Your task to perform on an android device: check data usage Image 0: 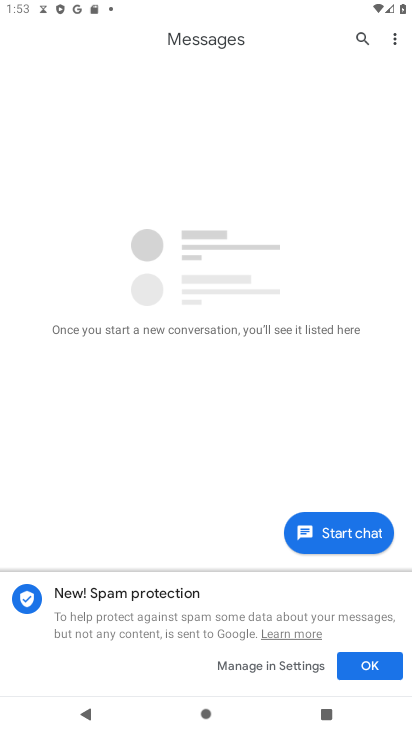
Step 0: press home button
Your task to perform on an android device: check data usage Image 1: 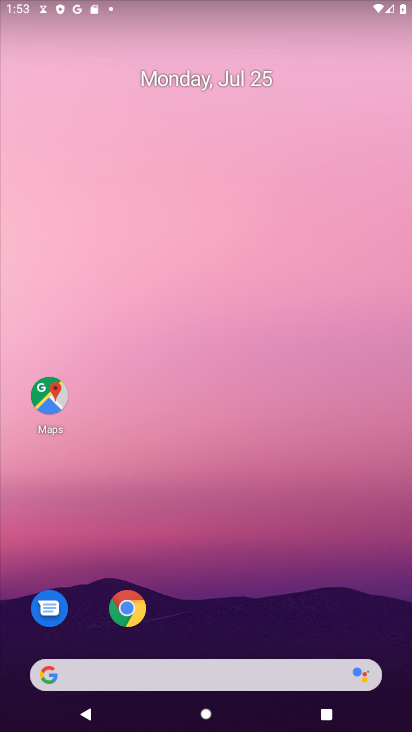
Step 1: drag from (161, 671) to (167, 147)
Your task to perform on an android device: check data usage Image 2: 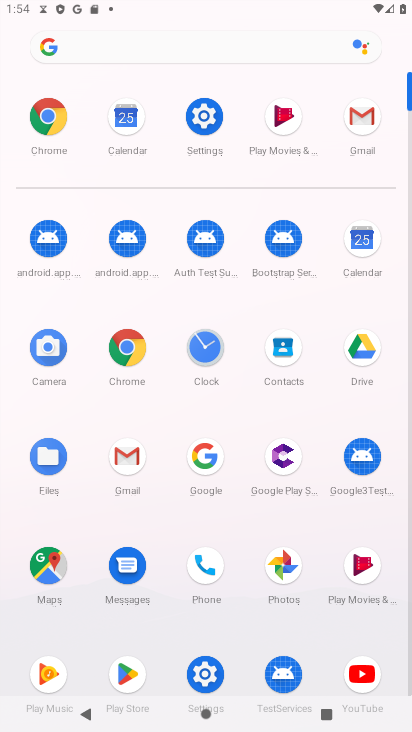
Step 2: click (205, 115)
Your task to perform on an android device: check data usage Image 3: 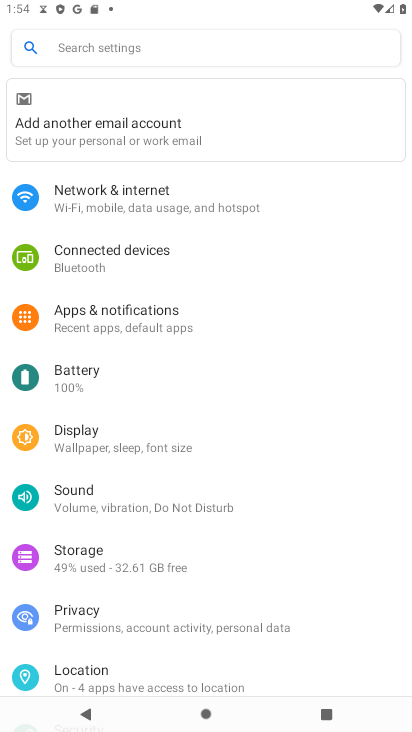
Step 3: click (115, 203)
Your task to perform on an android device: check data usage Image 4: 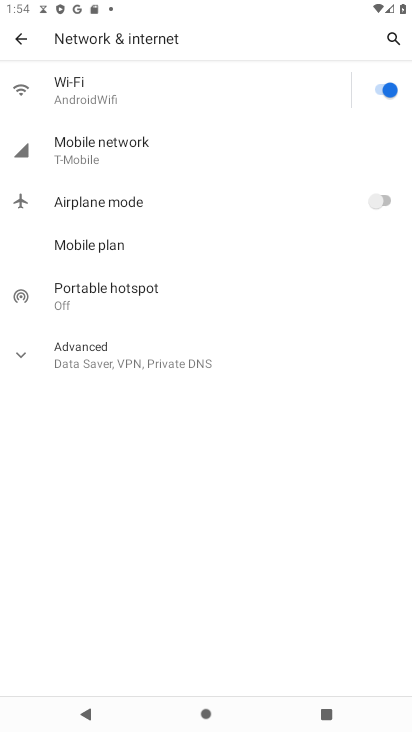
Step 4: click (93, 156)
Your task to perform on an android device: check data usage Image 5: 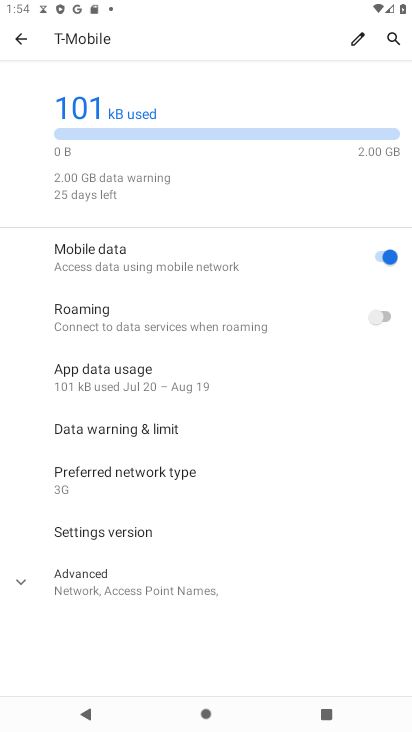
Step 5: task complete